Your task to perform on an android device: Clear the cart on costco.com. Add duracell triple a to the cart on costco.com, then select checkout. Image 0: 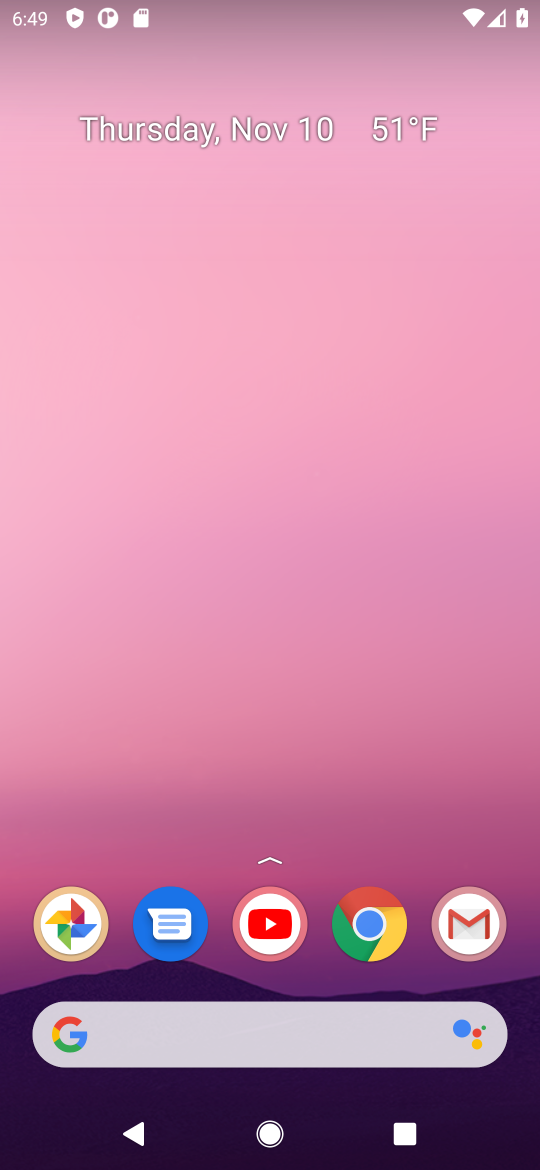
Step 0: click (370, 944)
Your task to perform on an android device: Clear the cart on costco.com. Add duracell triple a to the cart on costco.com, then select checkout. Image 1: 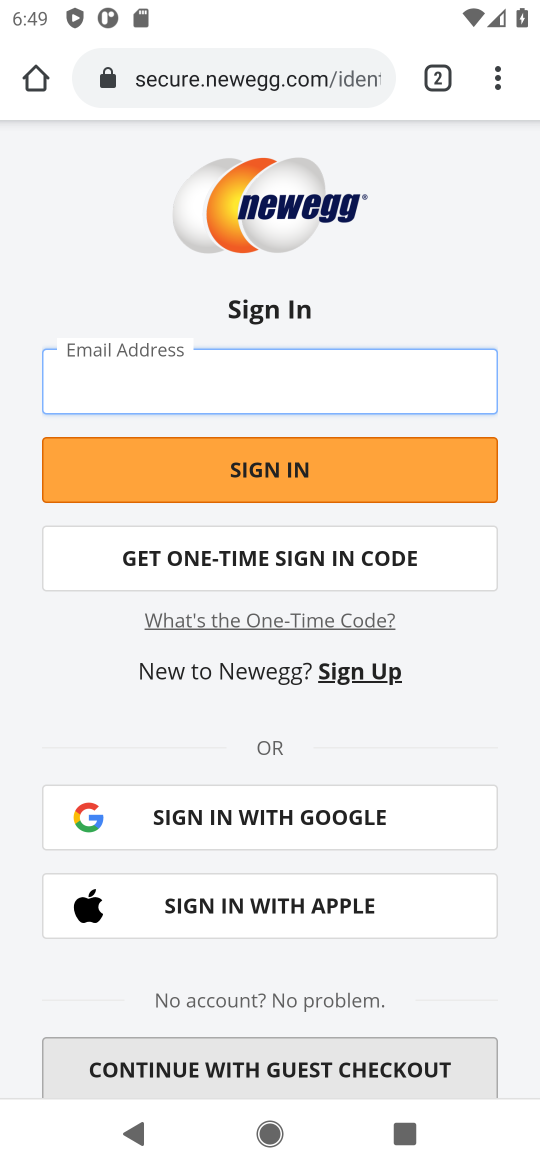
Step 1: click (209, 79)
Your task to perform on an android device: Clear the cart on costco.com. Add duracell triple a to the cart on costco.com, then select checkout. Image 2: 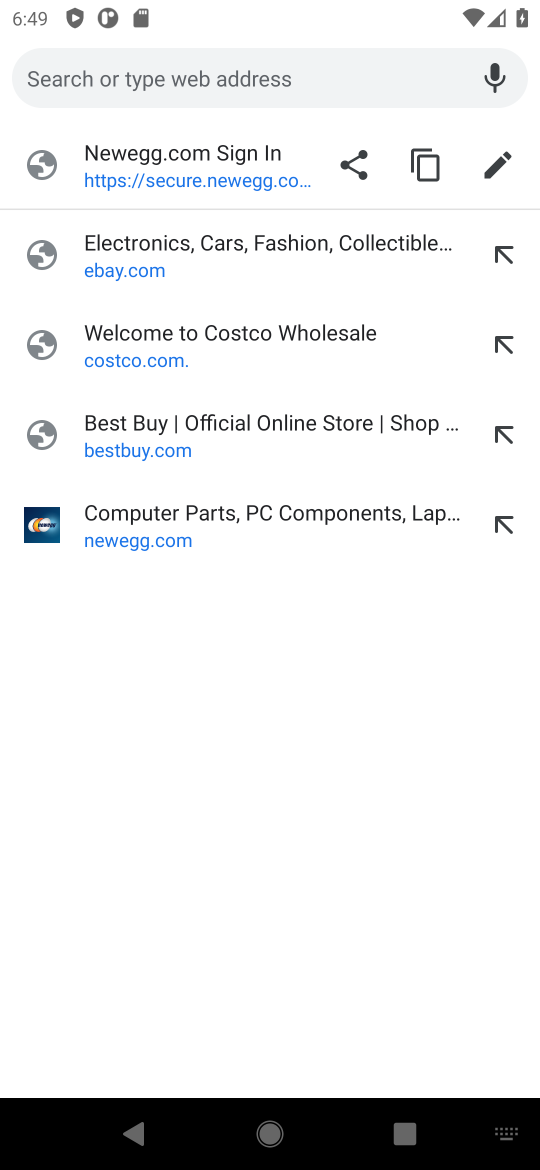
Step 2: click (129, 354)
Your task to perform on an android device: Clear the cart on costco.com. Add duracell triple a to the cart on costco.com, then select checkout. Image 3: 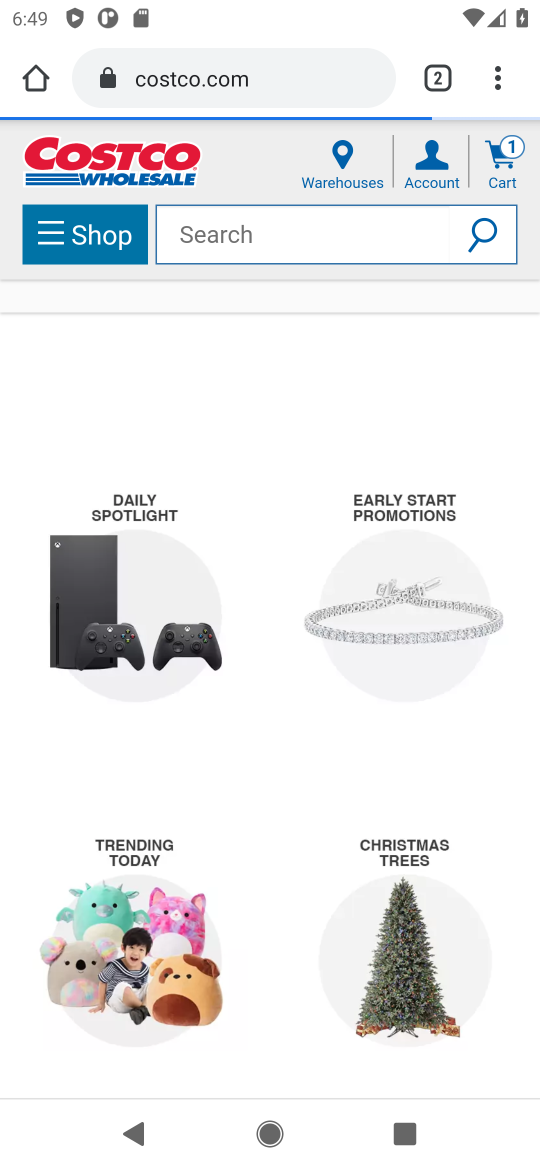
Step 3: click (502, 166)
Your task to perform on an android device: Clear the cart on costco.com. Add duracell triple a to the cart on costco.com, then select checkout. Image 4: 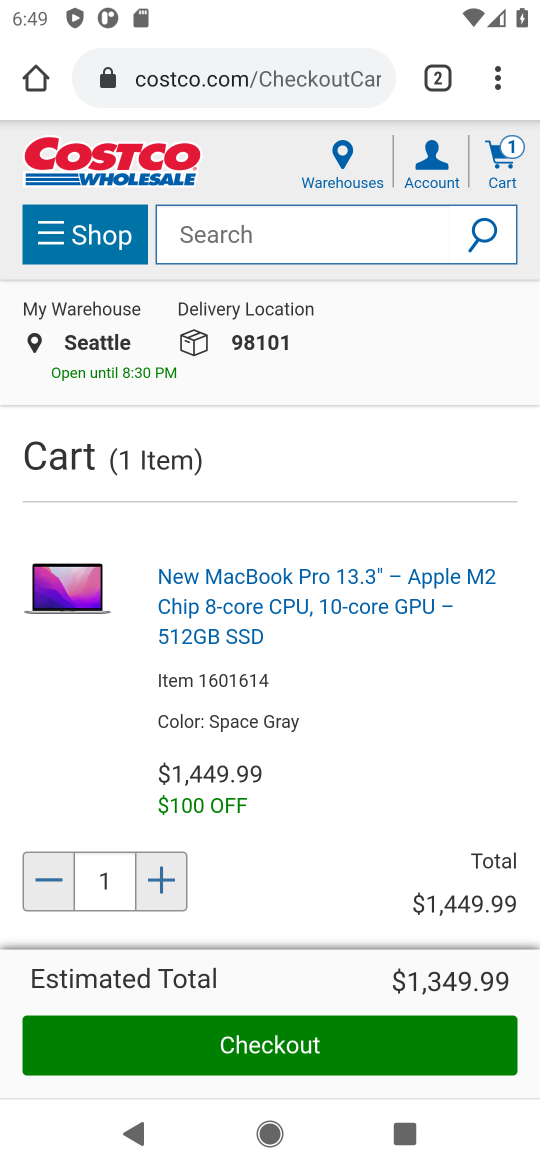
Step 4: drag from (280, 801) to (250, 520)
Your task to perform on an android device: Clear the cart on costco.com. Add duracell triple a to the cart on costco.com, then select checkout. Image 5: 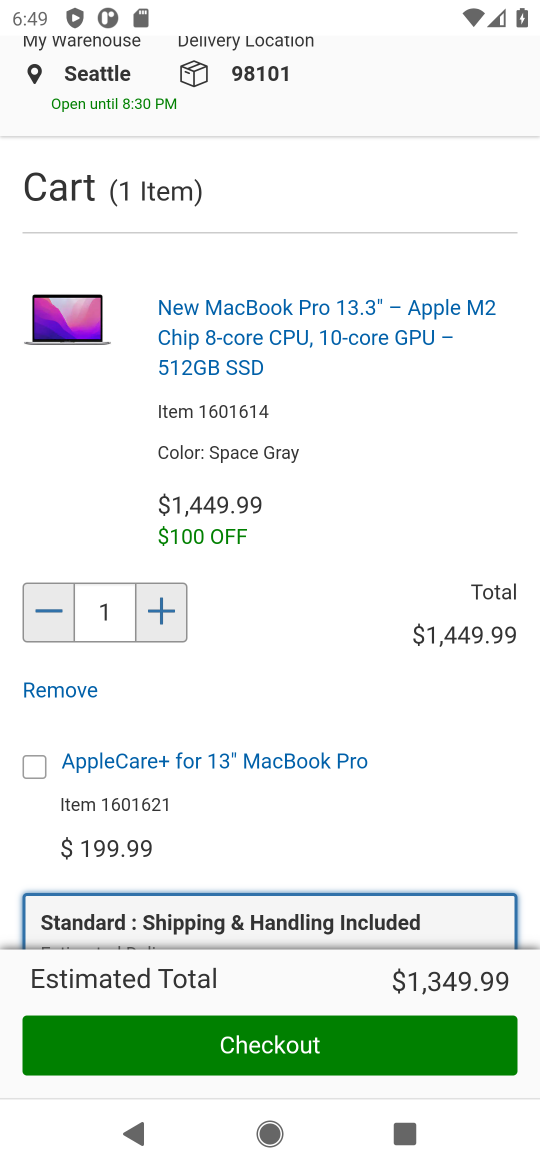
Step 5: drag from (203, 794) to (184, 499)
Your task to perform on an android device: Clear the cart on costco.com. Add duracell triple a to the cart on costco.com, then select checkout. Image 6: 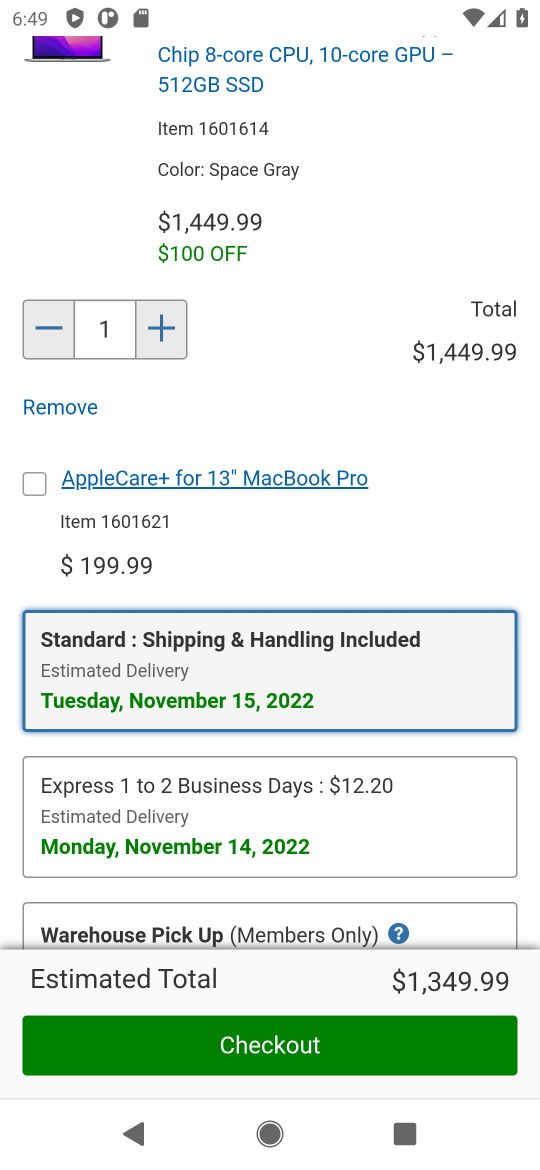
Step 6: drag from (255, 775) to (250, 407)
Your task to perform on an android device: Clear the cart on costco.com. Add duracell triple a to the cart on costco.com, then select checkout. Image 7: 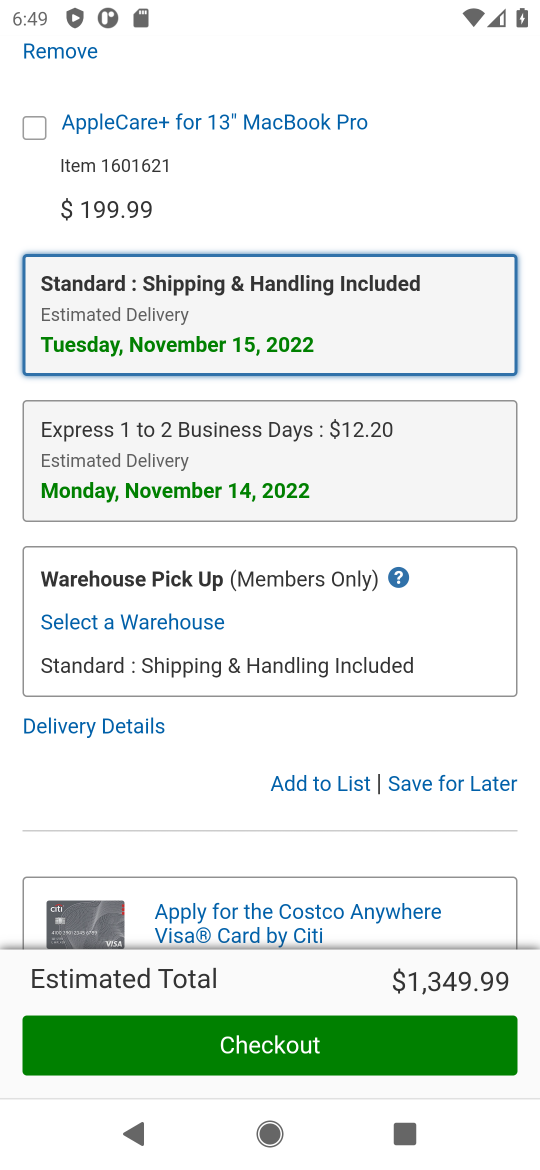
Step 7: click (422, 787)
Your task to perform on an android device: Clear the cart on costco.com. Add duracell triple a to the cart on costco.com, then select checkout. Image 8: 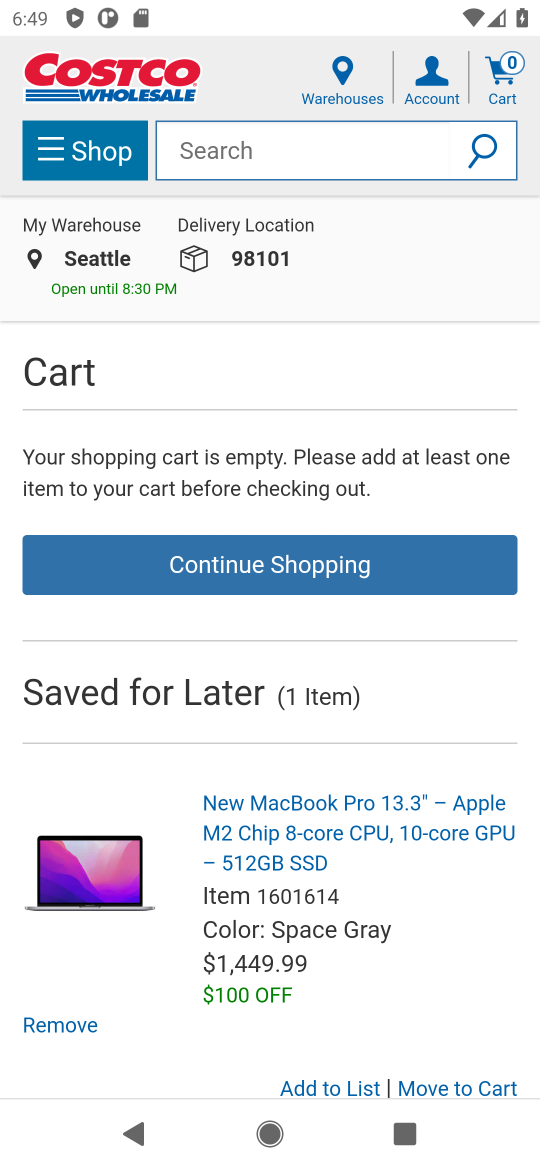
Step 8: click (221, 159)
Your task to perform on an android device: Clear the cart on costco.com. Add duracell triple a to the cart on costco.com, then select checkout. Image 9: 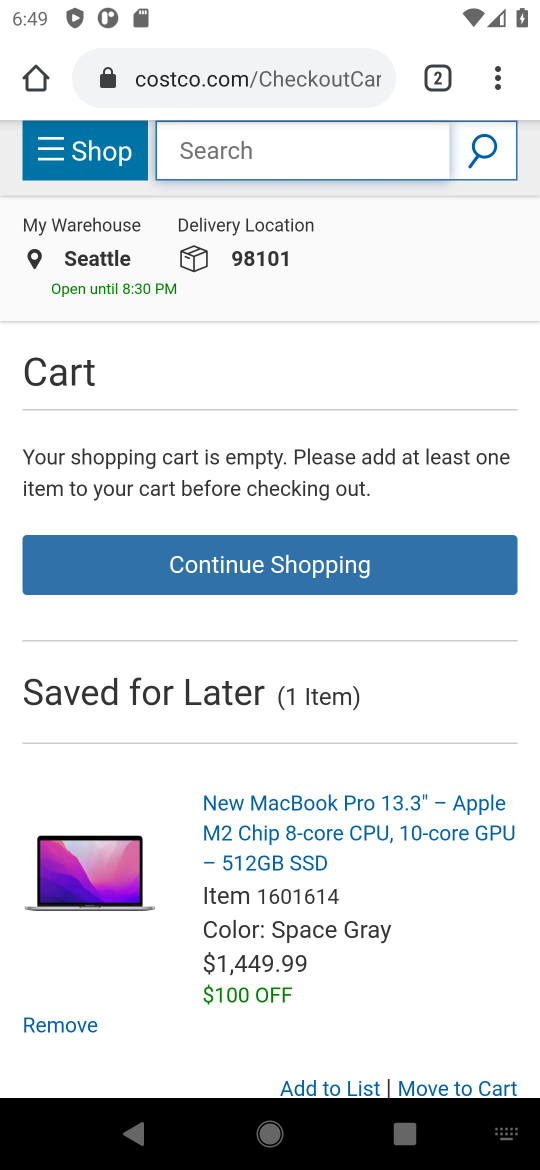
Step 9: type "duracell triple a"
Your task to perform on an android device: Clear the cart on costco.com. Add duracell triple a to the cart on costco.com, then select checkout. Image 10: 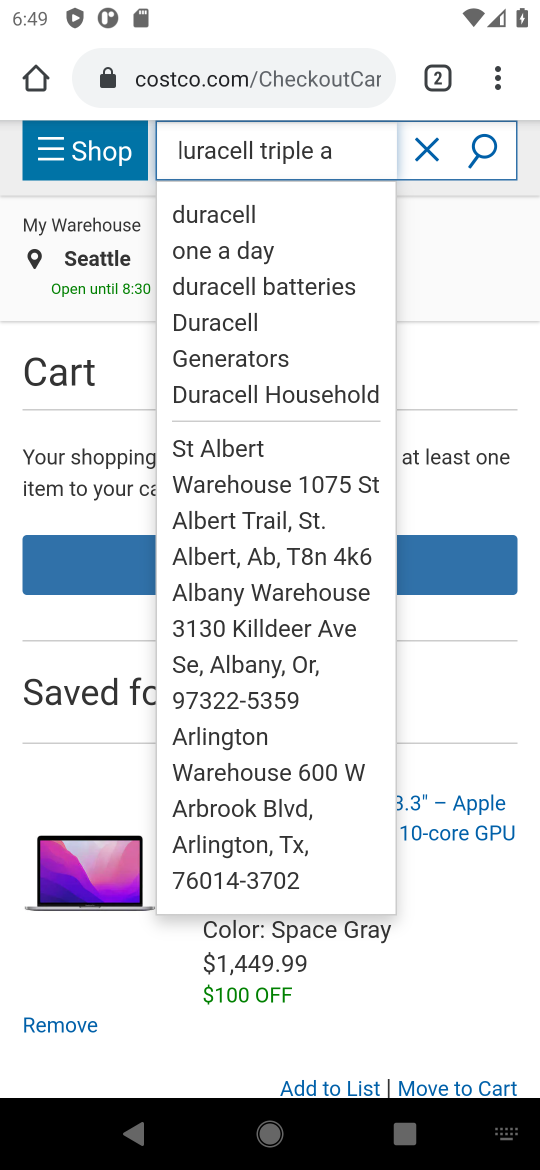
Step 10: click (477, 160)
Your task to perform on an android device: Clear the cart on costco.com. Add duracell triple a to the cart on costco.com, then select checkout. Image 11: 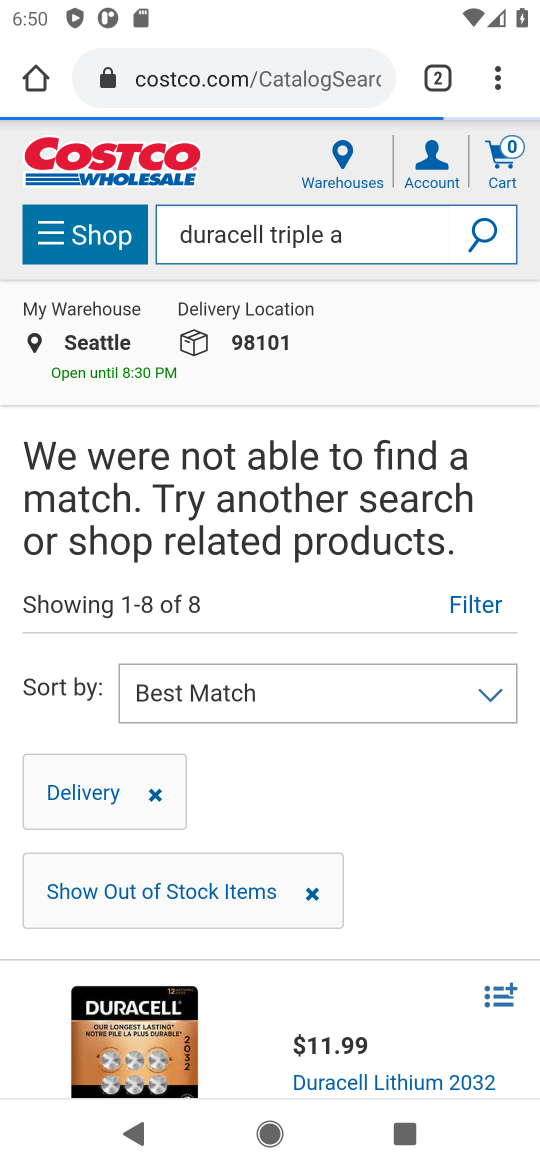
Step 11: task complete